Your task to perform on an android device: Show me the alarms in the clock app Image 0: 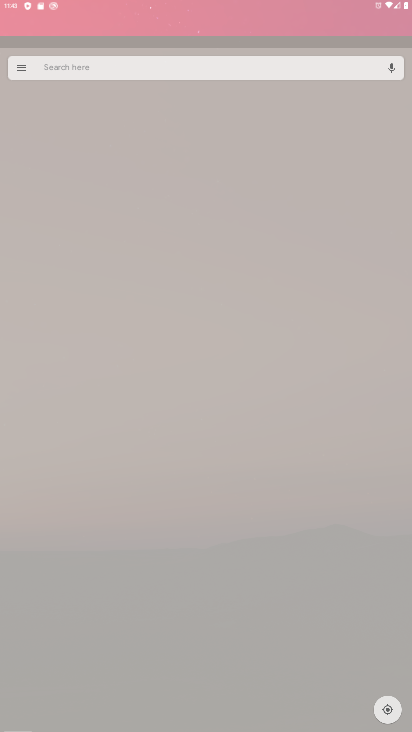
Step 0: press home button
Your task to perform on an android device: Show me the alarms in the clock app Image 1: 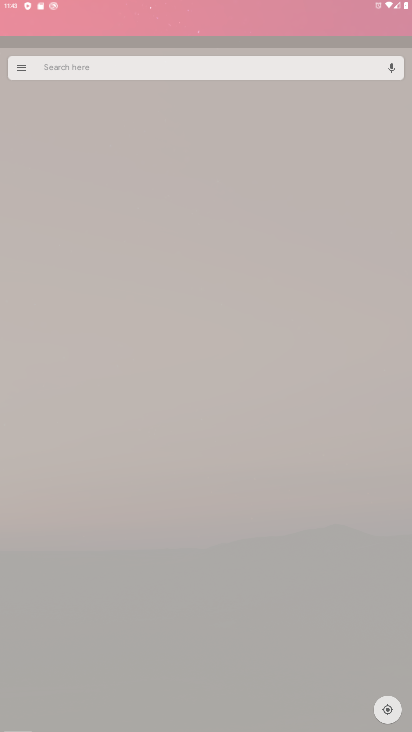
Step 1: click (158, 45)
Your task to perform on an android device: Show me the alarms in the clock app Image 2: 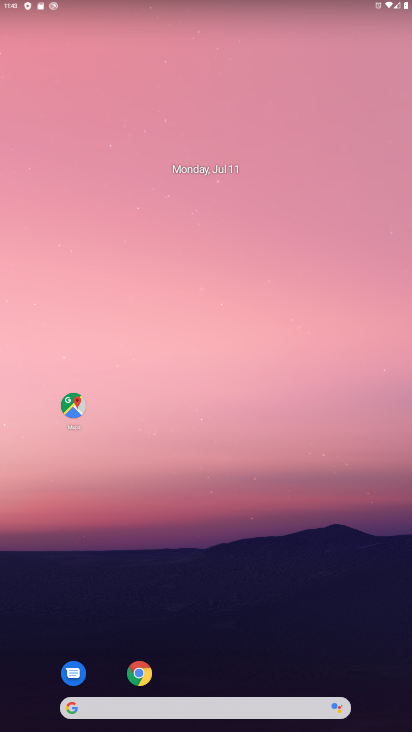
Step 2: drag from (203, 648) to (216, 27)
Your task to perform on an android device: Show me the alarms in the clock app Image 3: 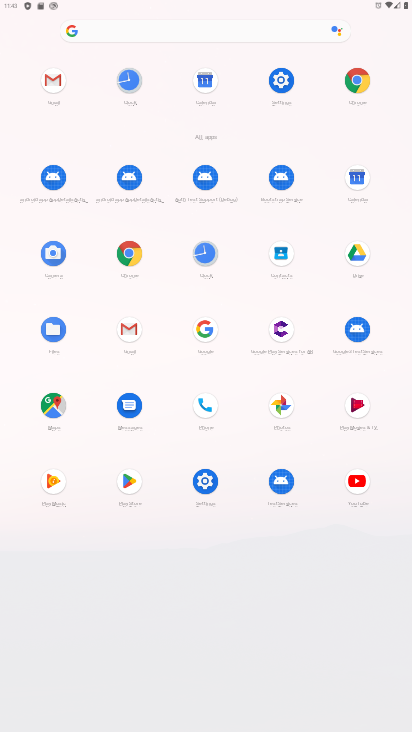
Step 3: click (204, 244)
Your task to perform on an android device: Show me the alarms in the clock app Image 4: 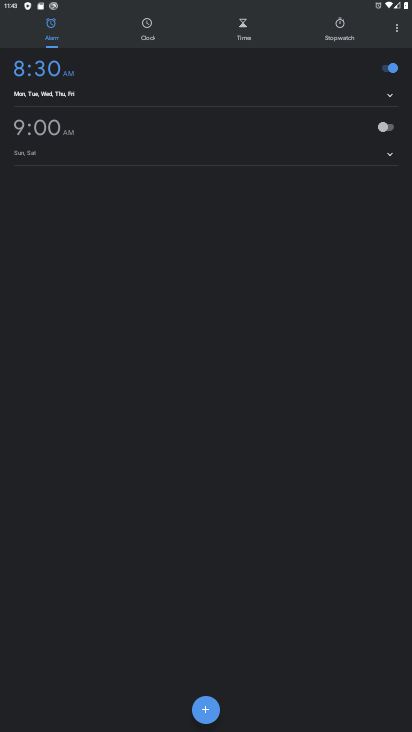
Step 4: click (390, 124)
Your task to perform on an android device: Show me the alarms in the clock app Image 5: 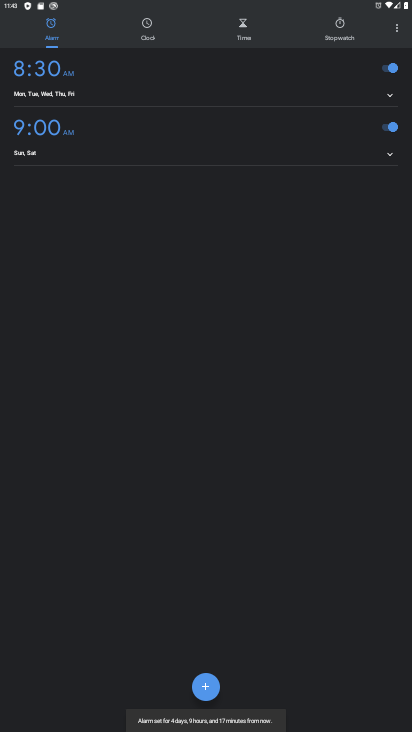
Step 5: task complete